Your task to perform on an android device: Open display settings Image 0: 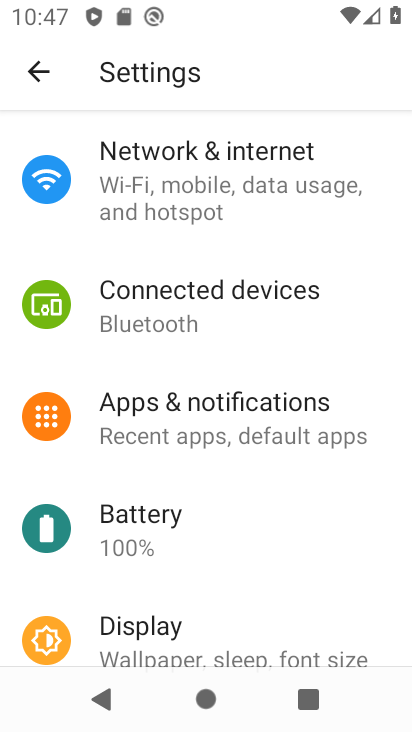
Step 0: click (137, 634)
Your task to perform on an android device: Open display settings Image 1: 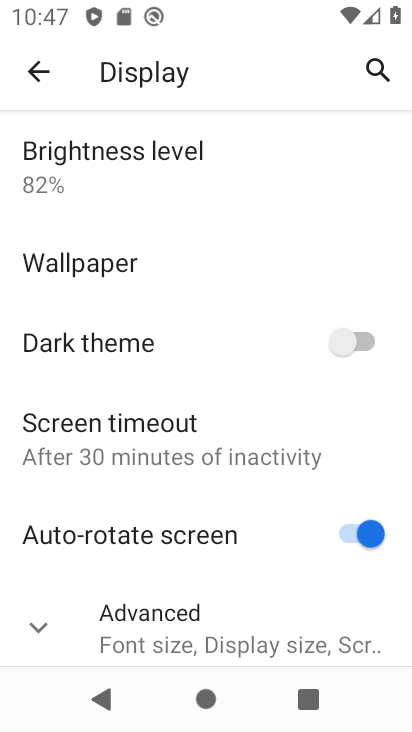
Step 1: task complete